Your task to perform on an android device: open app "Upside-Cash back on gas & food" (install if not already installed) Image 0: 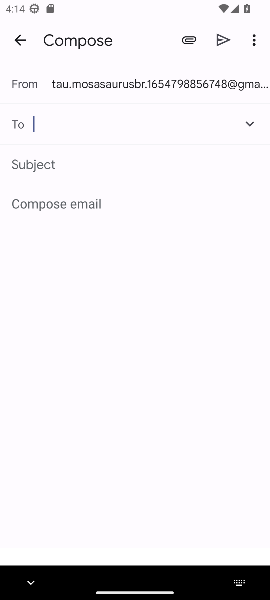
Step 0: press home button
Your task to perform on an android device: open app "Upside-Cash back on gas & food" (install if not already installed) Image 1: 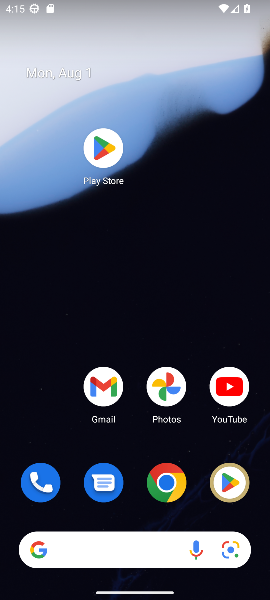
Step 1: click (103, 149)
Your task to perform on an android device: open app "Upside-Cash back on gas & food" (install if not already installed) Image 2: 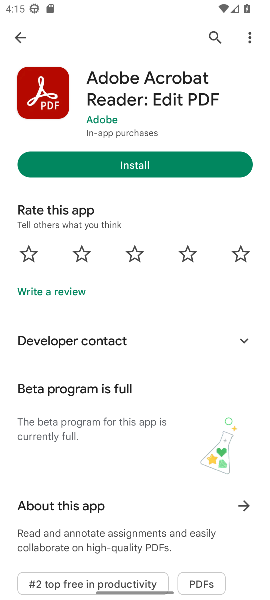
Step 2: click (217, 31)
Your task to perform on an android device: open app "Upside-Cash back on gas & food" (install if not already installed) Image 3: 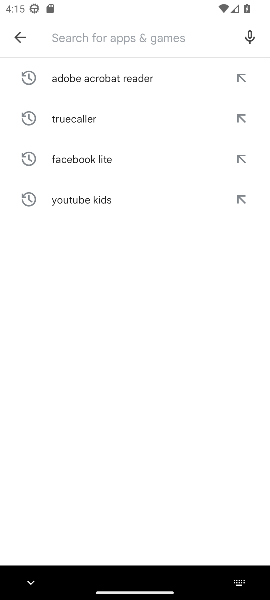
Step 3: type "Upside-Cash back on gas & food"
Your task to perform on an android device: open app "Upside-Cash back on gas & food" (install if not already installed) Image 4: 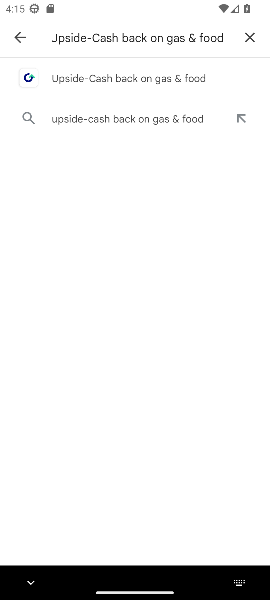
Step 4: click (120, 79)
Your task to perform on an android device: open app "Upside-Cash back on gas & food" (install if not already installed) Image 5: 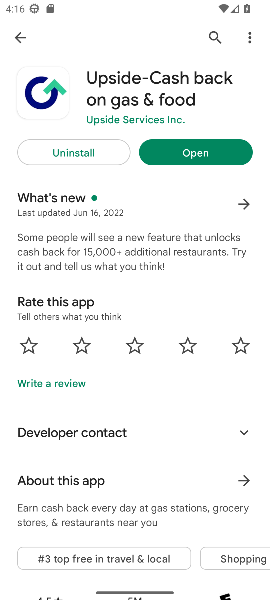
Step 5: click (173, 154)
Your task to perform on an android device: open app "Upside-Cash back on gas & food" (install if not already installed) Image 6: 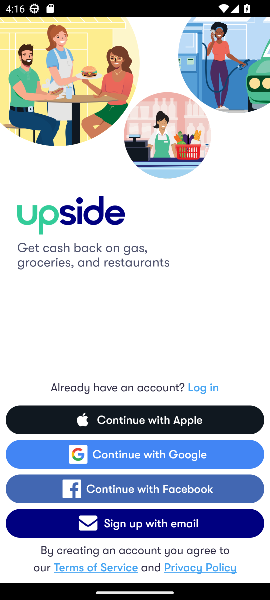
Step 6: task complete